Your task to perform on an android device: Open privacy settings Image 0: 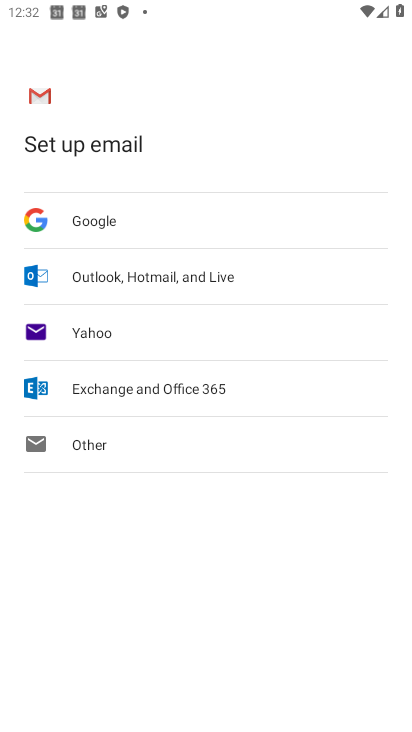
Step 0: press back button
Your task to perform on an android device: Open privacy settings Image 1: 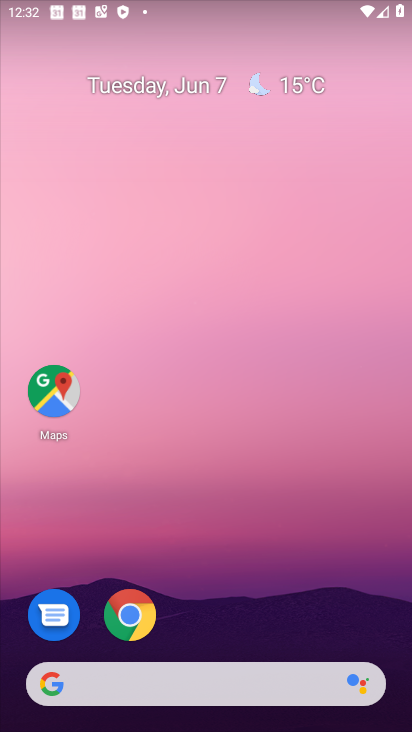
Step 1: drag from (241, 590) to (83, 445)
Your task to perform on an android device: Open privacy settings Image 2: 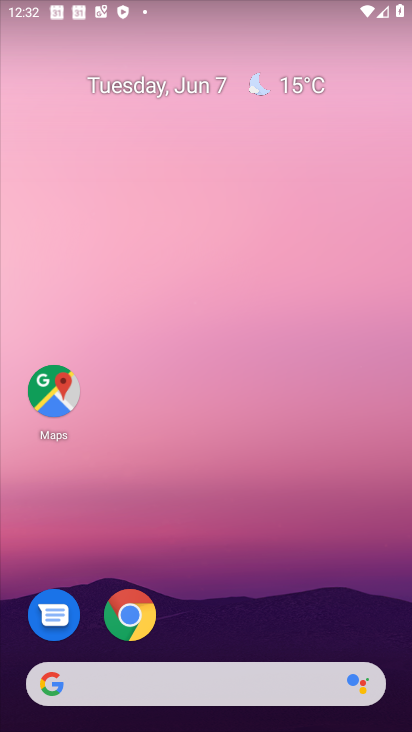
Step 2: drag from (217, 621) to (281, 10)
Your task to perform on an android device: Open privacy settings Image 3: 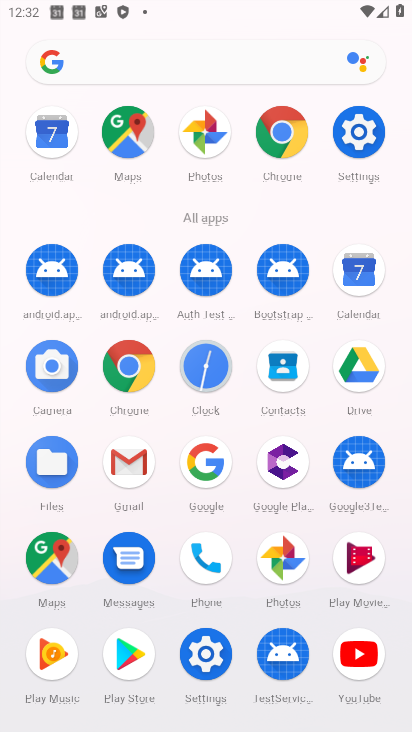
Step 3: drag from (243, 587) to (316, 126)
Your task to perform on an android device: Open privacy settings Image 4: 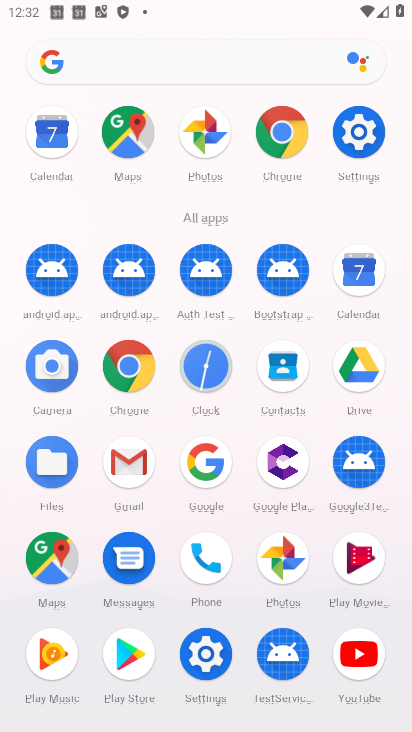
Step 4: click (371, 144)
Your task to perform on an android device: Open privacy settings Image 5: 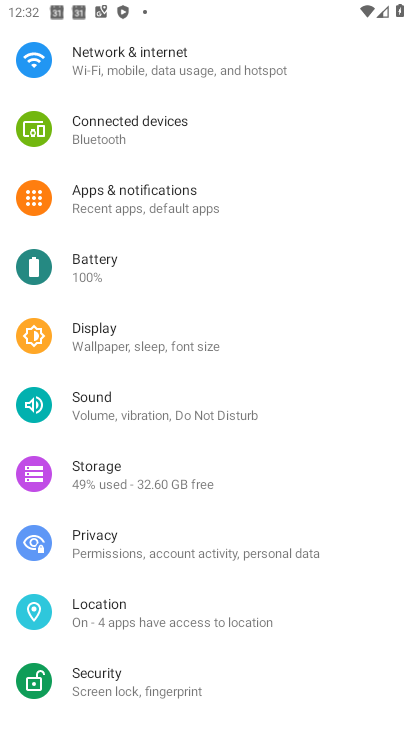
Step 5: drag from (113, 610) to (156, 217)
Your task to perform on an android device: Open privacy settings Image 6: 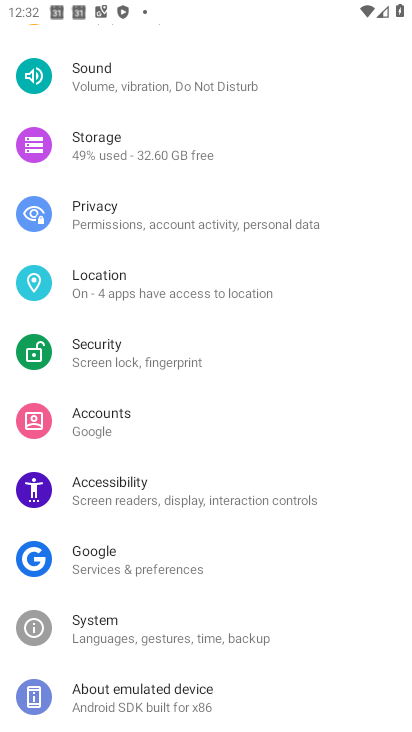
Step 6: click (97, 217)
Your task to perform on an android device: Open privacy settings Image 7: 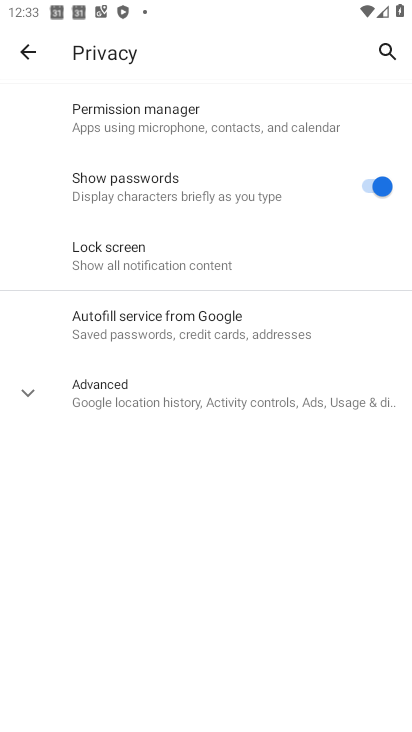
Step 7: task complete